Your task to perform on an android device: Show me productivity apps on the Play Store Image 0: 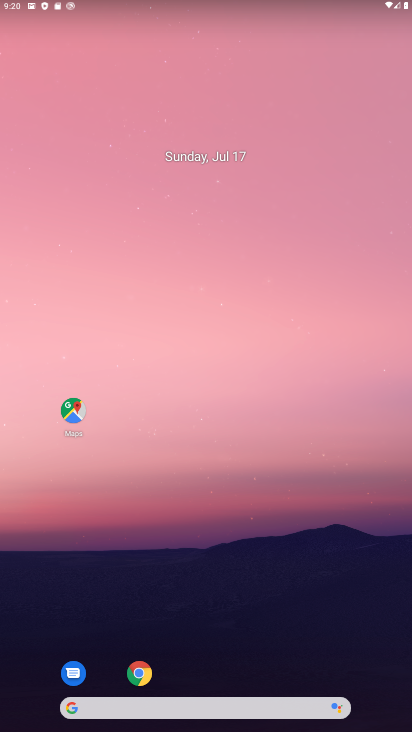
Step 0: drag from (272, 585) to (232, 174)
Your task to perform on an android device: Show me productivity apps on the Play Store Image 1: 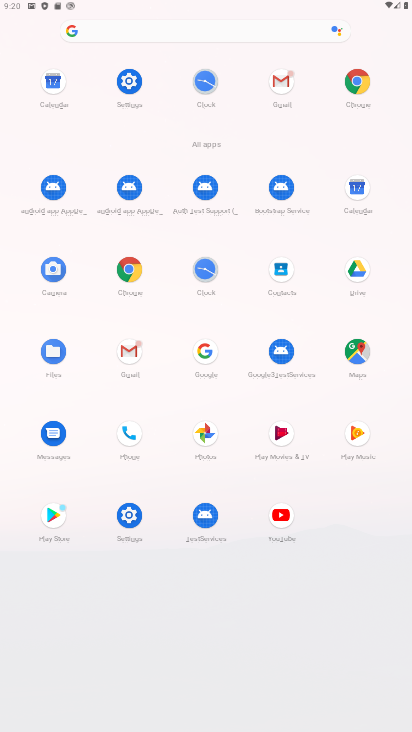
Step 1: click (52, 514)
Your task to perform on an android device: Show me productivity apps on the Play Store Image 2: 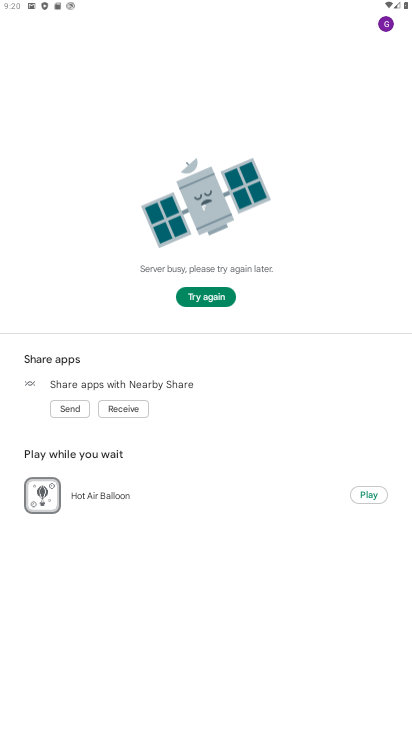
Step 2: click (206, 299)
Your task to perform on an android device: Show me productivity apps on the Play Store Image 3: 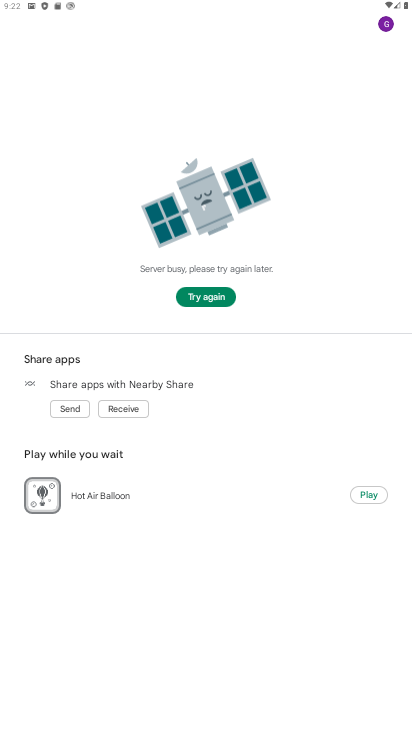
Step 3: task complete